Your task to perform on an android device: change keyboard looks Image 0: 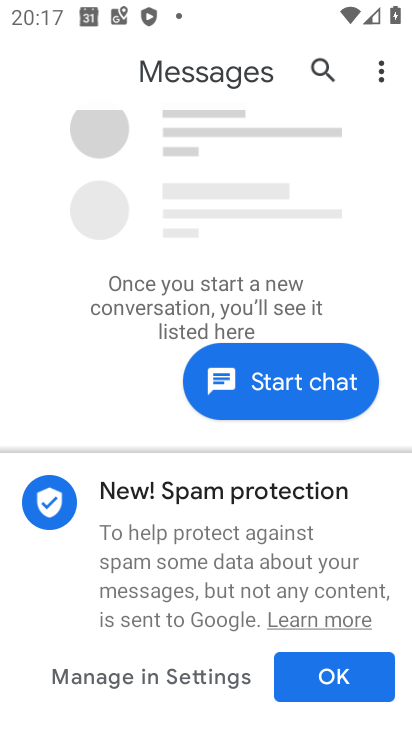
Step 0: press home button
Your task to perform on an android device: change keyboard looks Image 1: 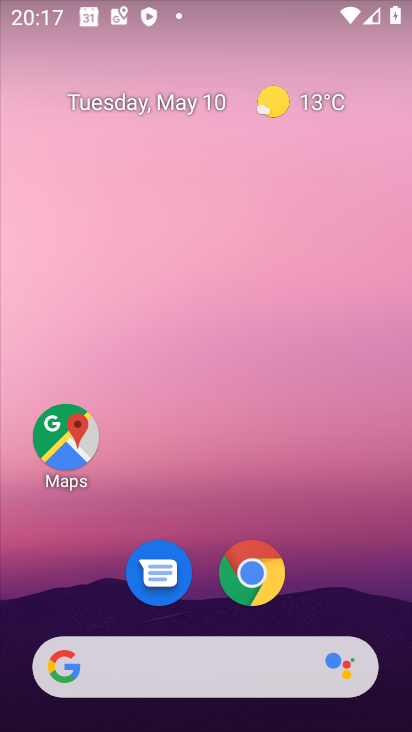
Step 1: drag from (385, 599) to (297, 3)
Your task to perform on an android device: change keyboard looks Image 2: 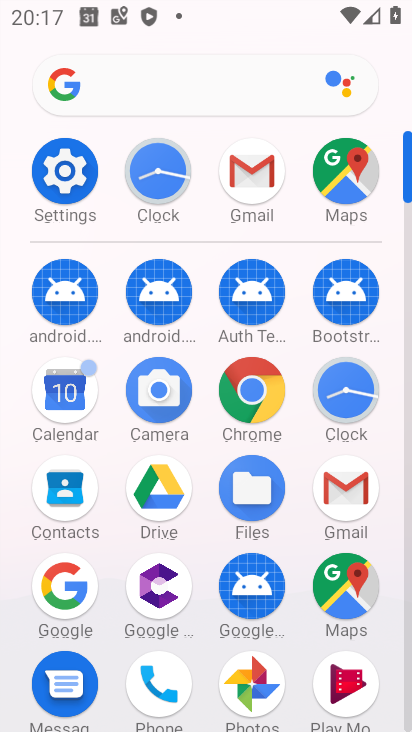
Step 2: click (47, 182)
Your task to perform on an android device: change keyboard looks Image 3: 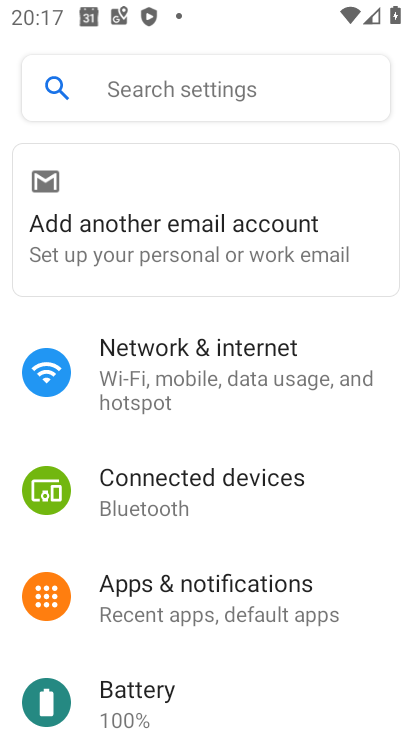
Step 3: drag from (371, 684) to (344, 13)
Your task to perform on an android device: change keyboard looks Image 4: 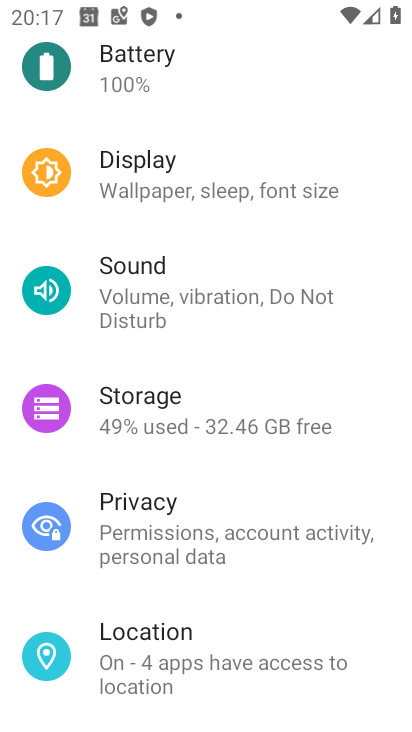
Step 4: drag from (371, 679) to (371, 239)
Your task to perform on an android device: change keyboard looks Image 5: 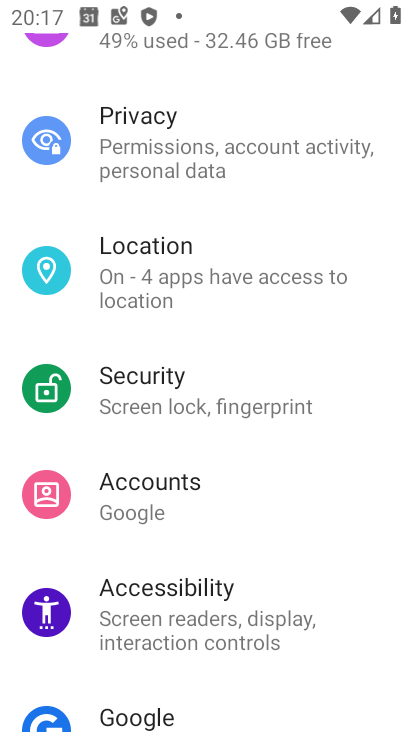
Step 5: drag from (398, 619) to (373, 144)
Your task to perform on an android device: change keyboard looks Image 6: 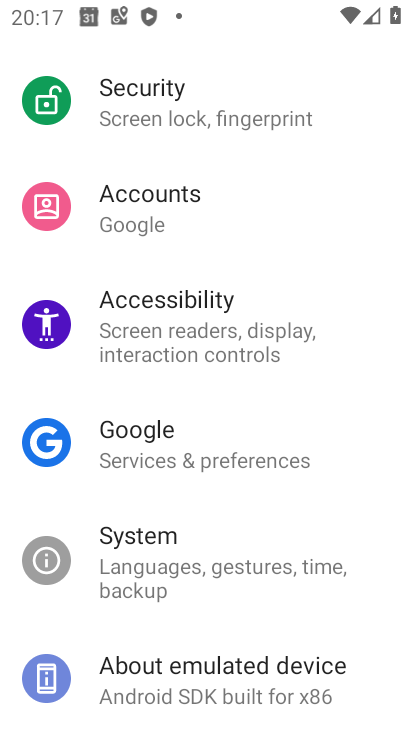
Step 6: click (140, 579)
Your task to perform on an android device: change keyboard looks Image 7: 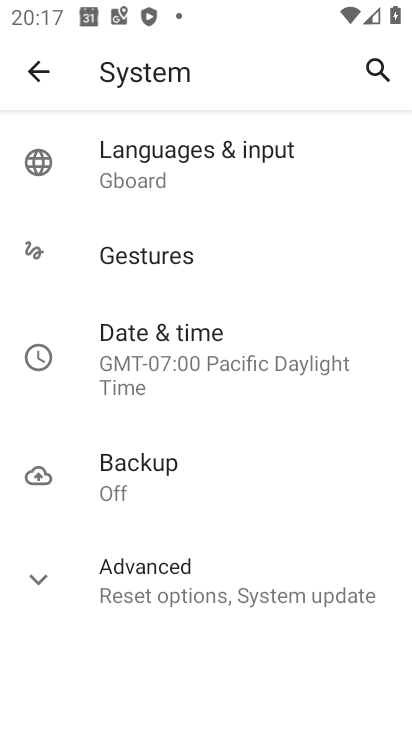
Step 7: click (145, 178)
Your task to perform on an android device: change keyboard looks Image 8: 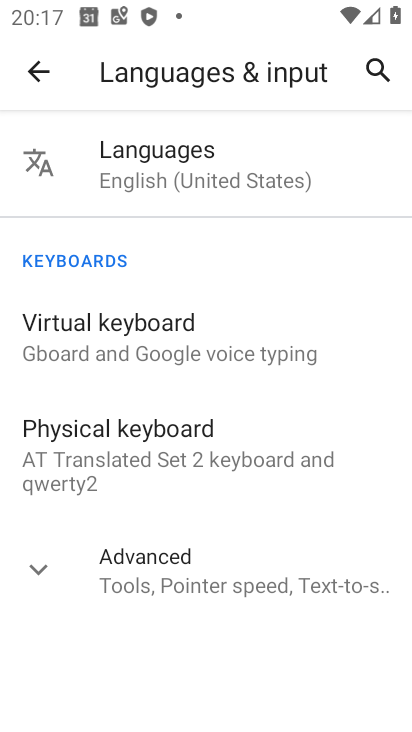
Step 8: click (90, 345)
Your task to perform on an android device: change keyboard looks Image 9: 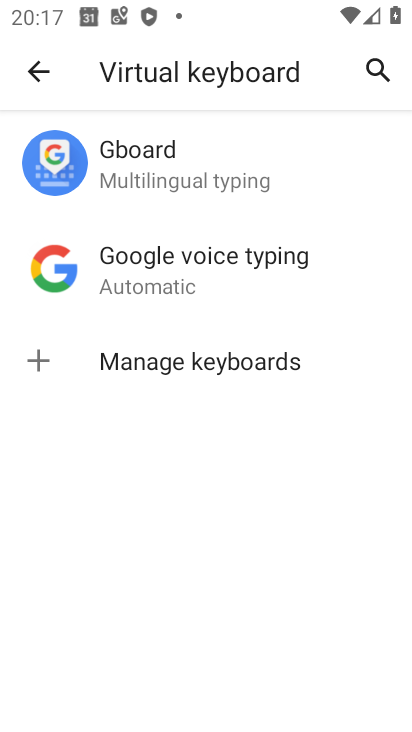
Step 9: click (84, 200)
Your task to perform on an android device: change keyboard looks Image 10: 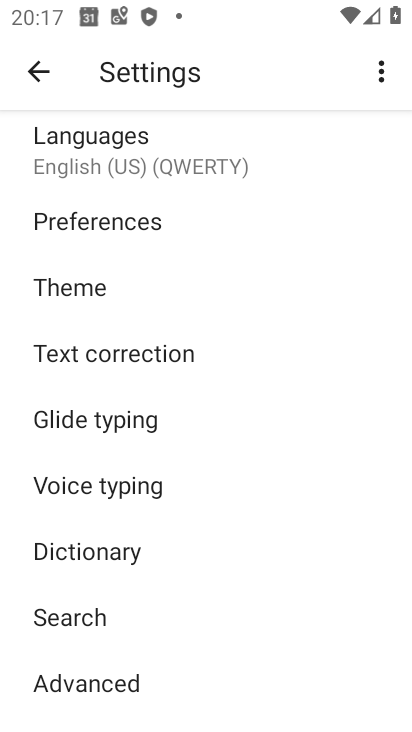
Step 10: click (61, 295)
Your task to perform on an android device: change keyboard looks Image 11: 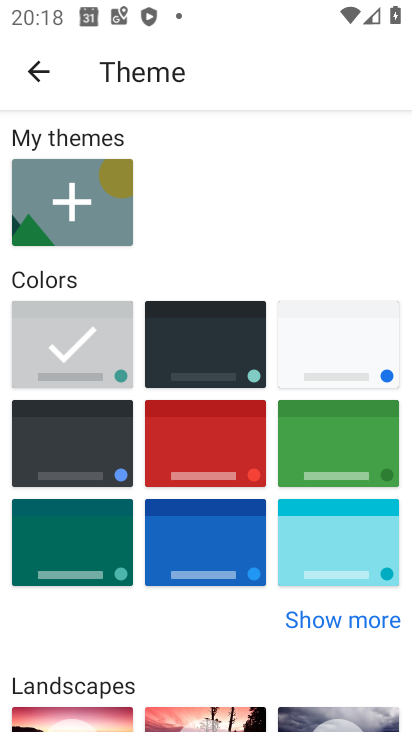
Step 11: click (178, 448)
Your task to perform on an android device: change keyboard looks Image 12: 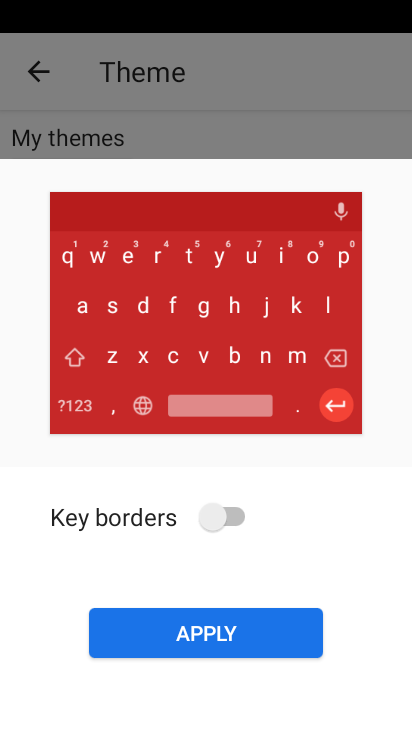
Step 12: click (209, 520)
Your task to perform on an android device: change keyboard looks Image 13: 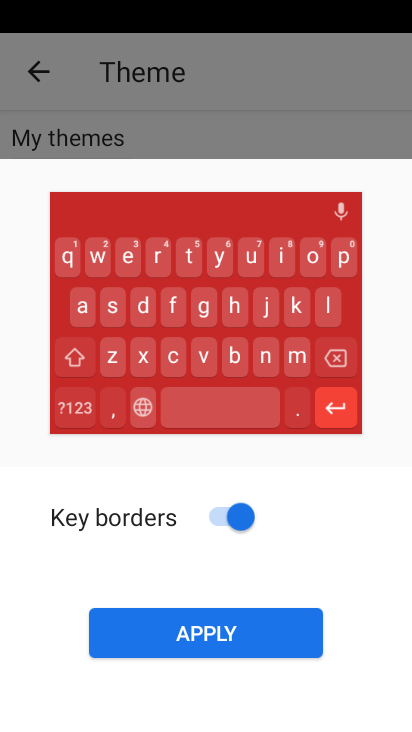
Step 13: click (180, 614)
Your task to perform on an android device: change keyboard looks Image 14: 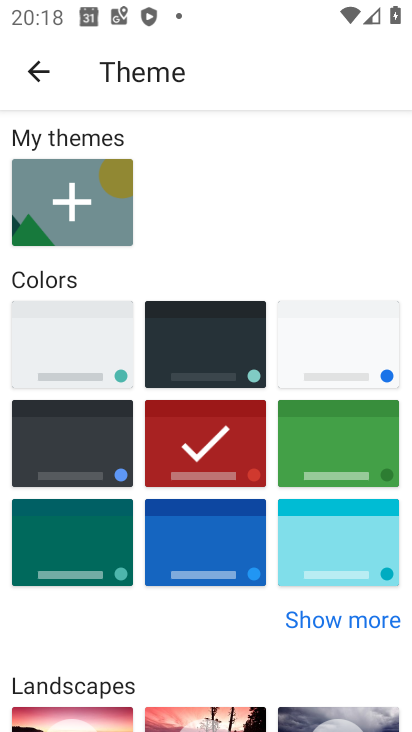
Step 14: task complete